Your task to perform on an android device: install app "Google Pay: Save, Pay, Manage" Image 0: 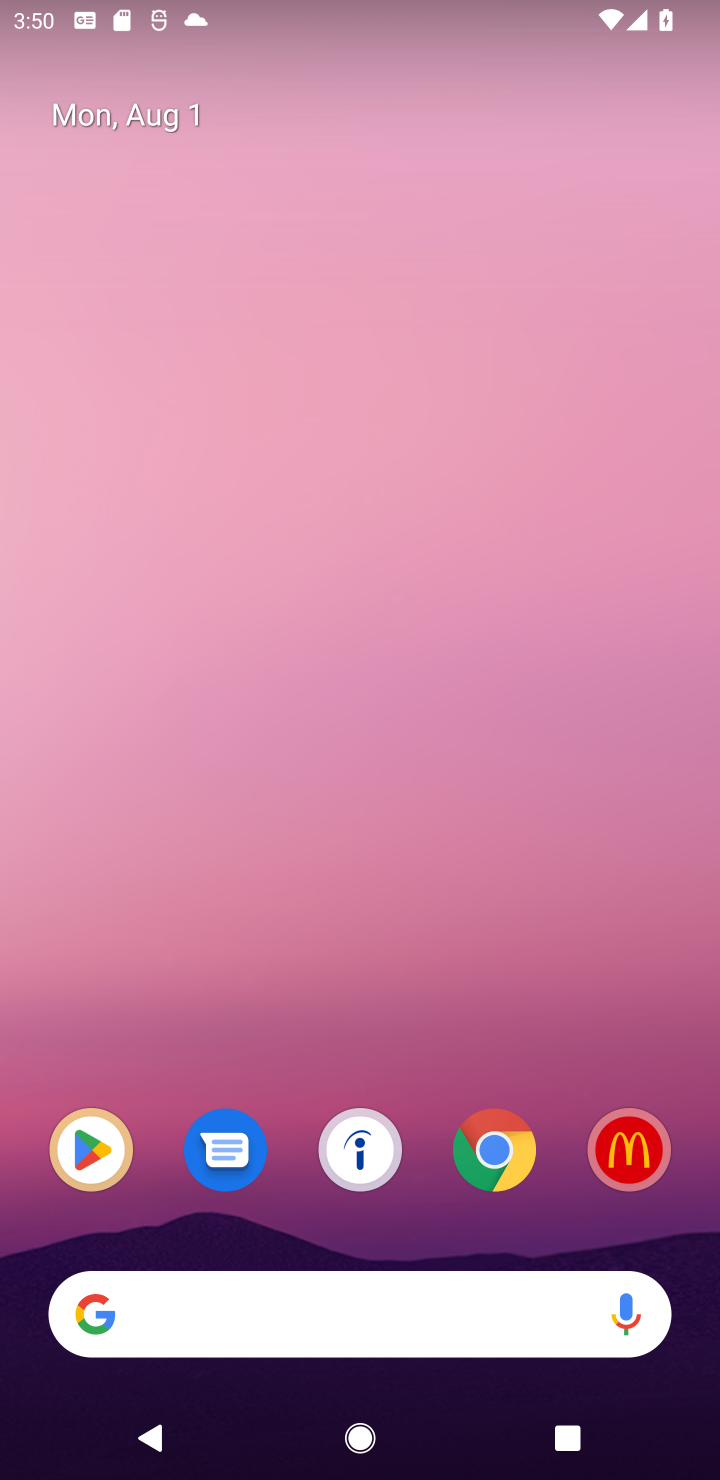
Step 0: drag from (444, 1229) to (433, 165)
Your task to perform on an android device: install app "Google Pay: Save, Pay, Manage" Image 1: 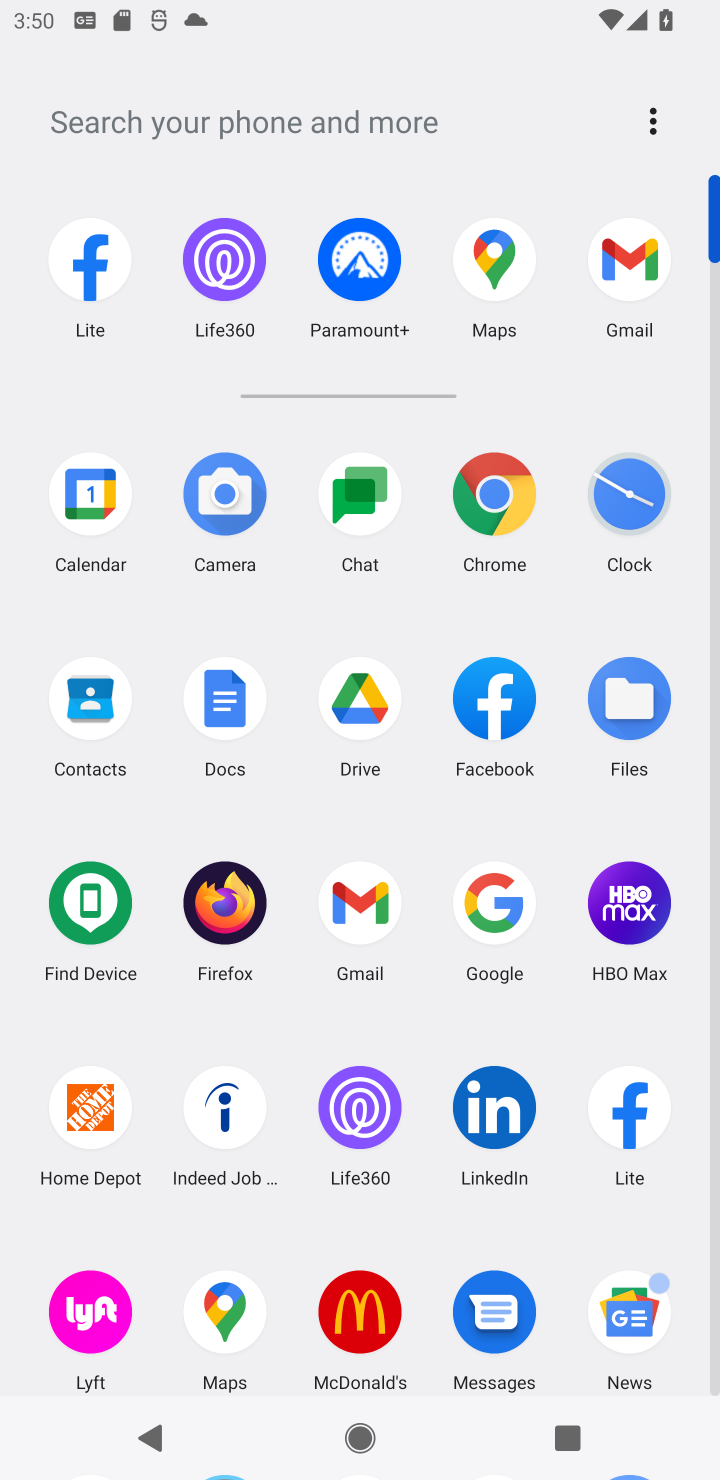
Step 1: press home button
Your task to perform on an android device: install app "Google Pay: Save, Pay, Manage" Image 2: 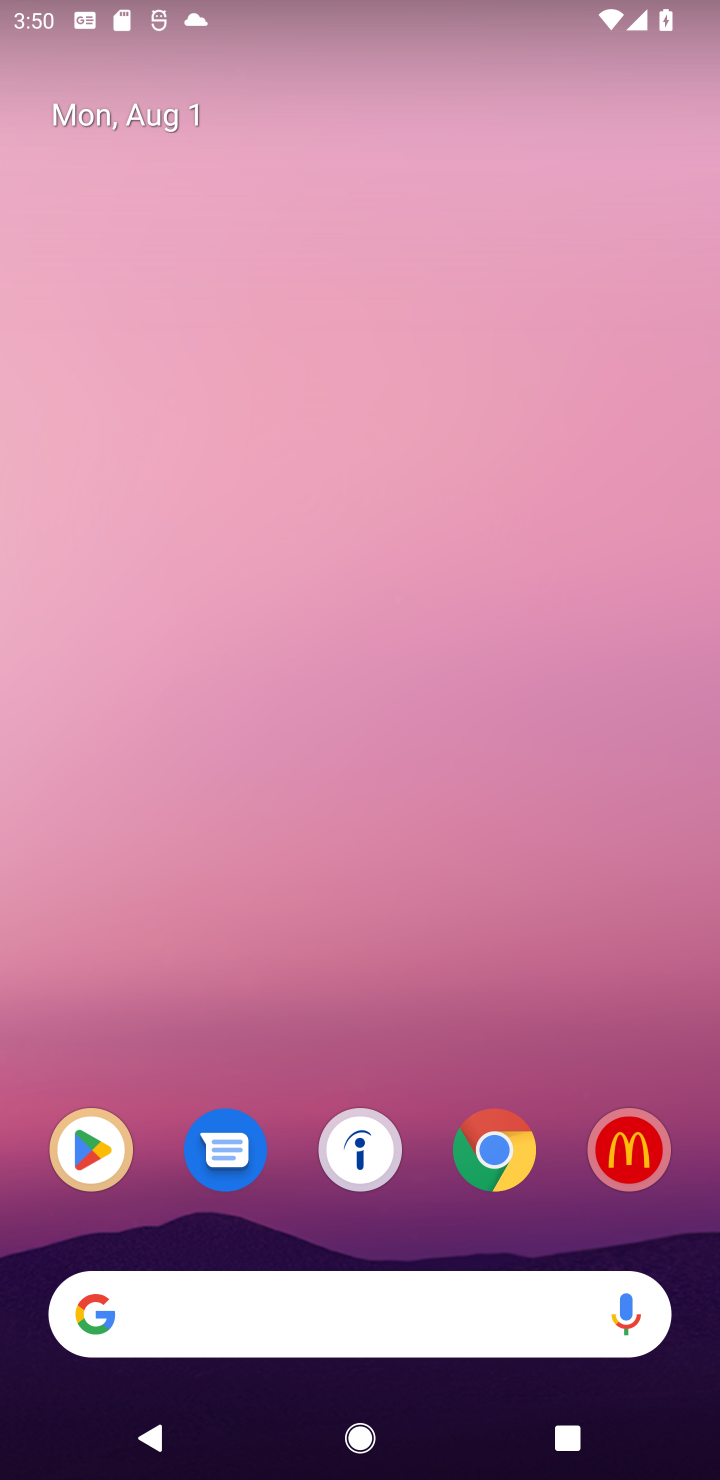
Step 2: click (85, 1156)
Your task to perform on an android device: install app "Google Pay: Save, Pay, Manage" Image 3: 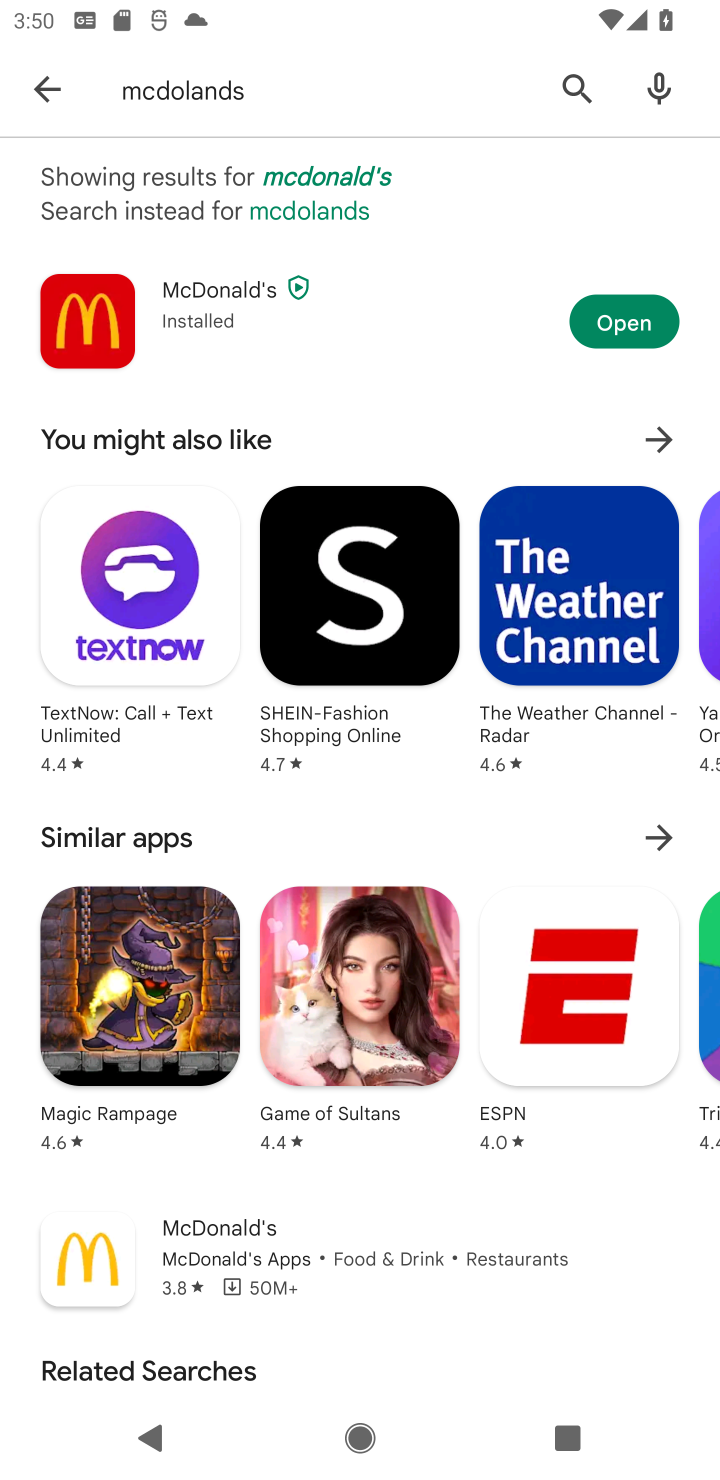
Step 3: click (575, 102)
Your task to perform on an android device: install app "Google Pay: Save, Pay, Manage" Image 4: 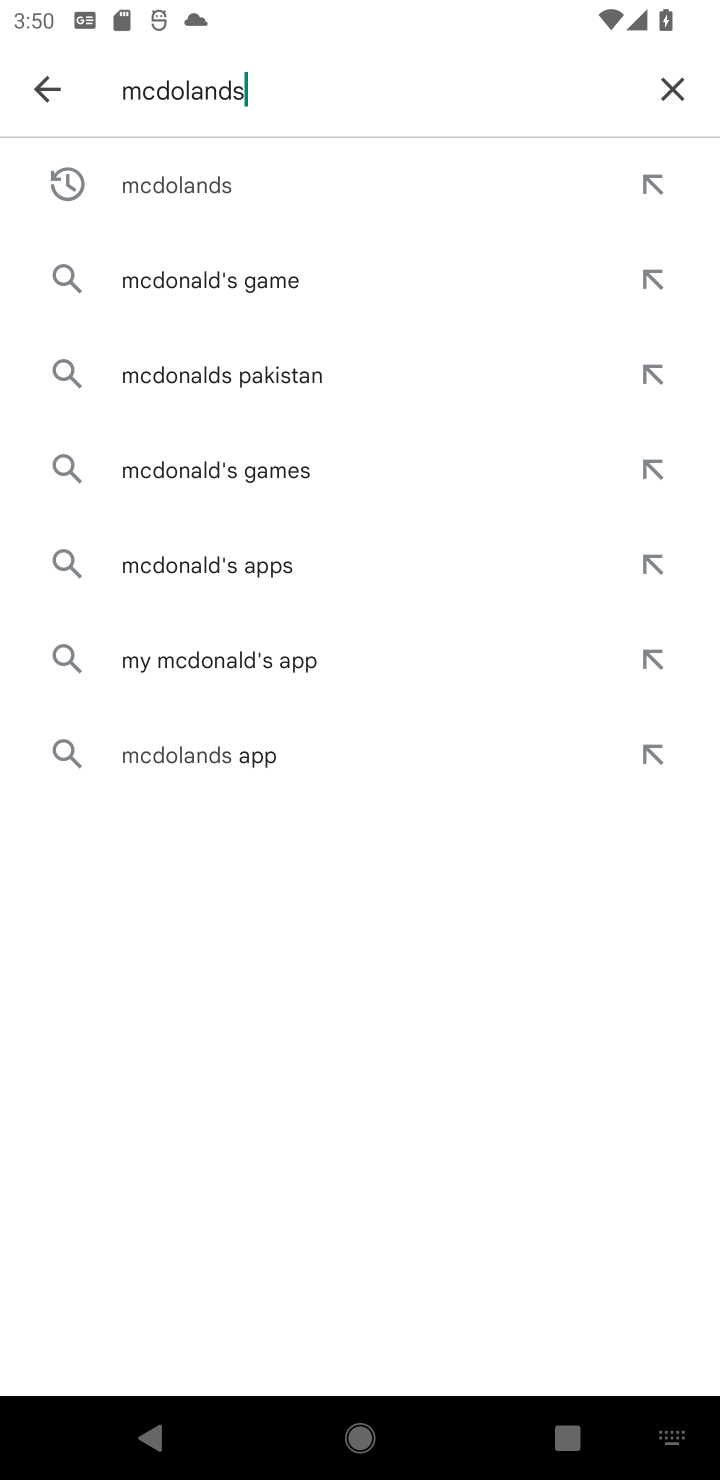
Step 4: click (657, 90)
Your task to perform on an android device: install app "Google Pay: Save, Pay, Manage" Image 5: 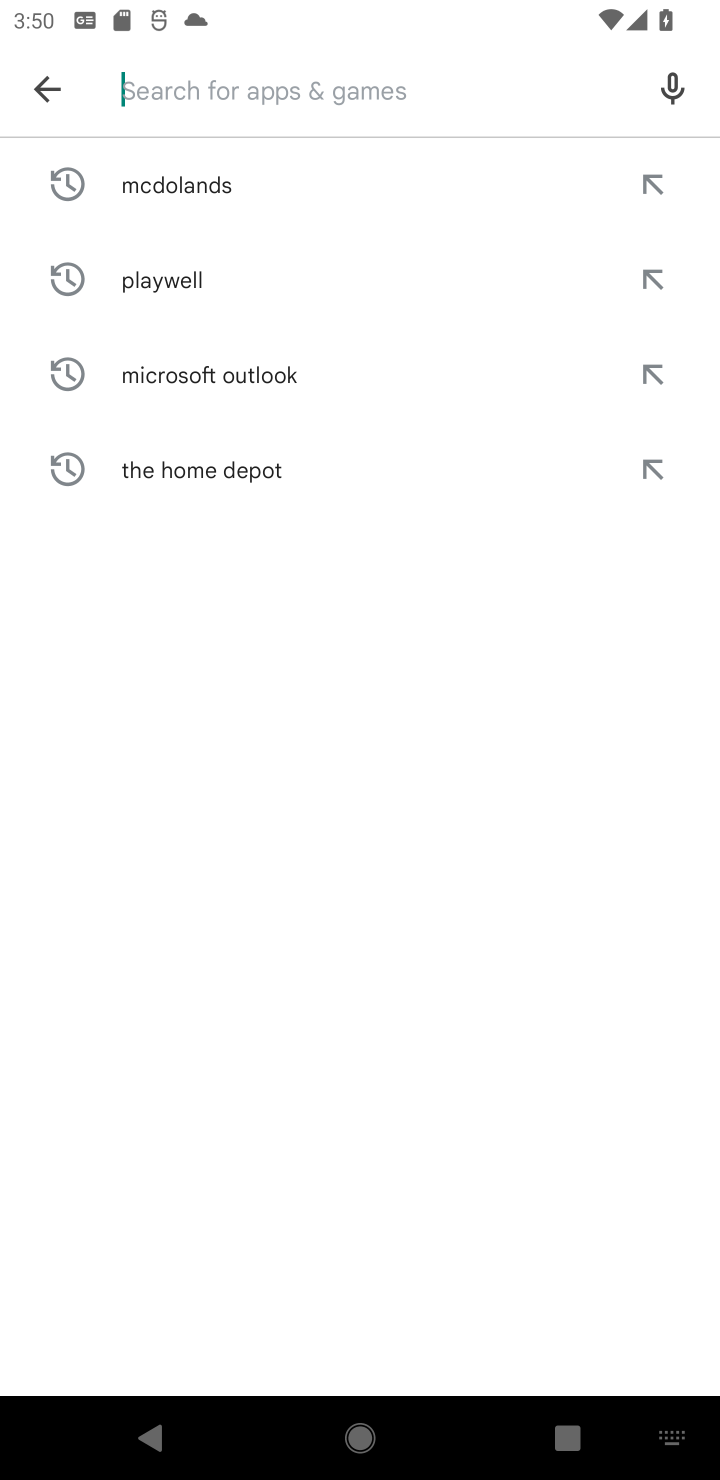
Step 5: type "google pay"
Your task to perform on an android device: install app "Google Pay: Save, Pay, Manage" Image 6: 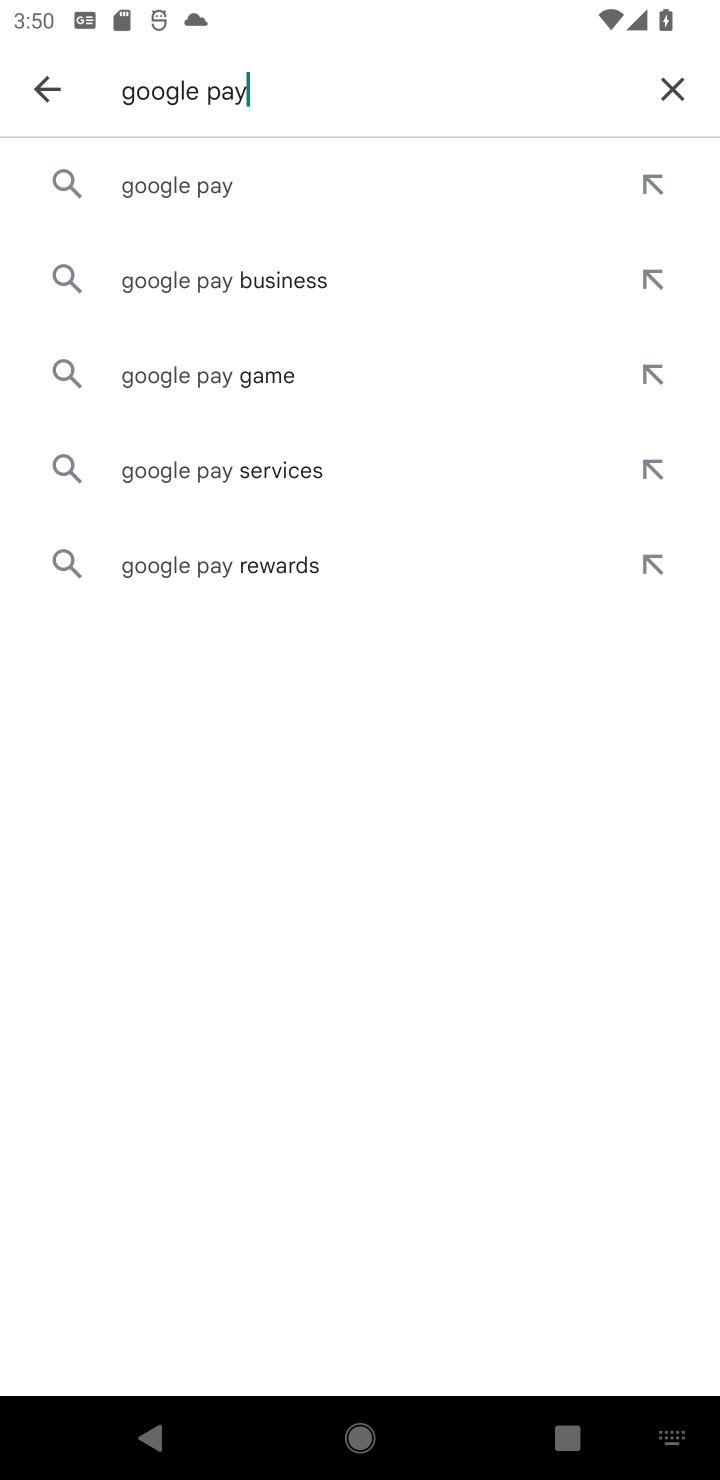
Step 6: click (229, 210)
Your task to perform on an android device: install app "Google Pay: Save, Pay, Manage" Image 7: 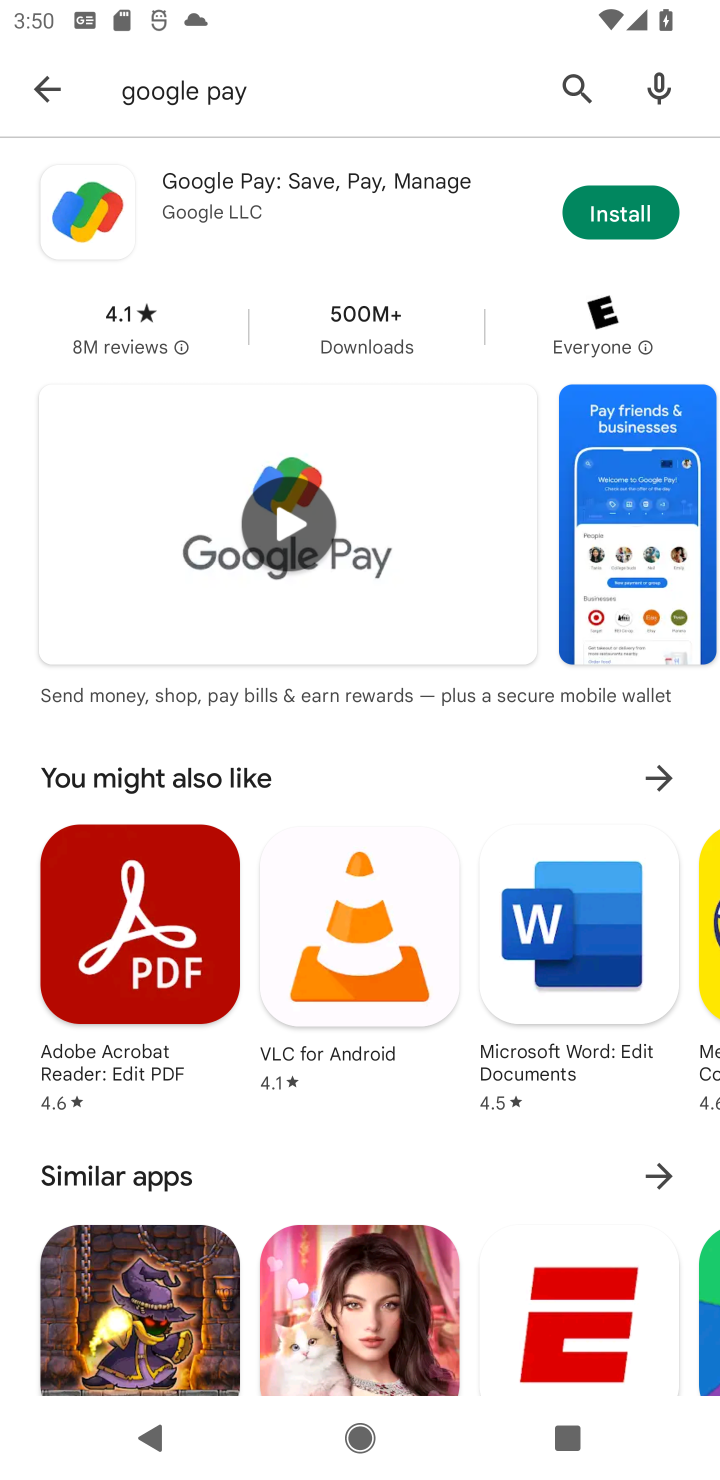
Step 7: click (646, 225)
Your task to perform on an android device: install app "Google Pay: Save, Pay, Manage" Image 8: 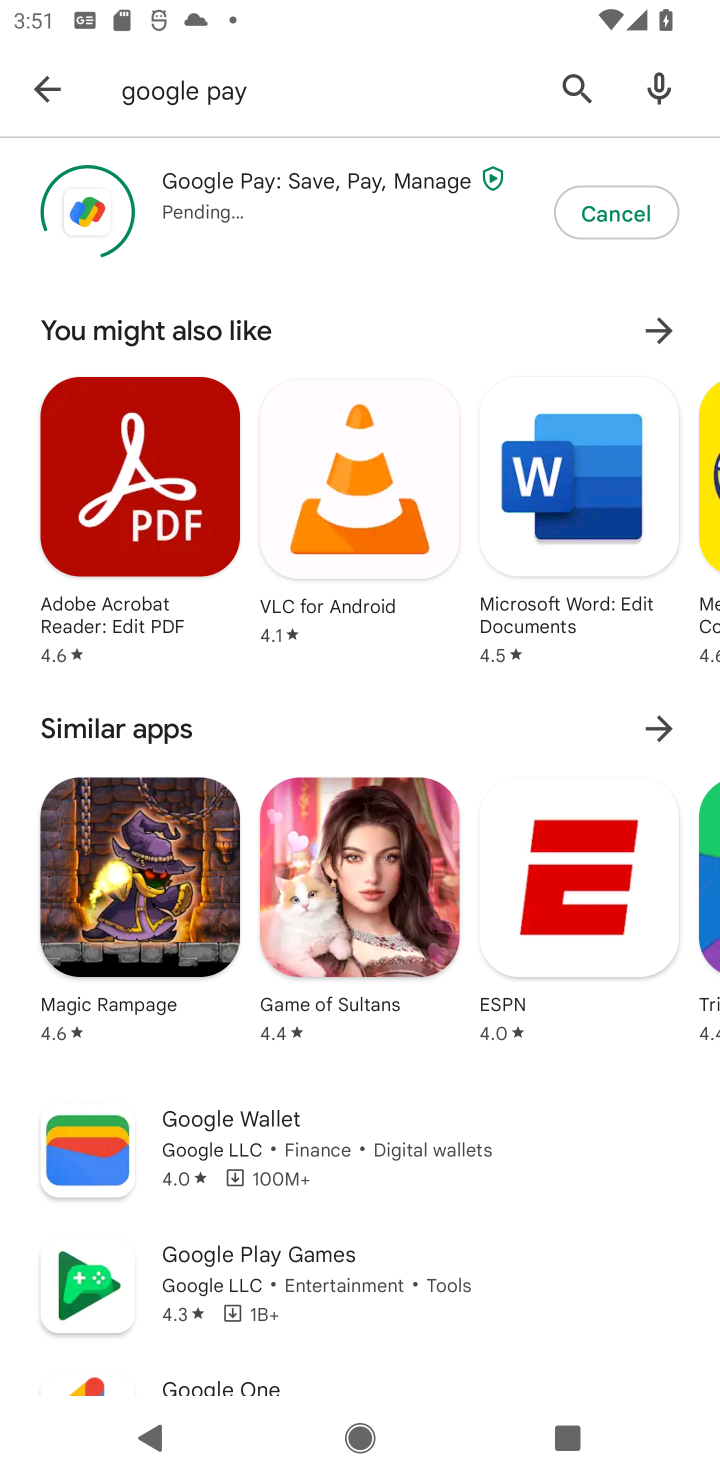
Step 8: task complete